Your task to perform on an android device: create a new album in the google photos Image 0: 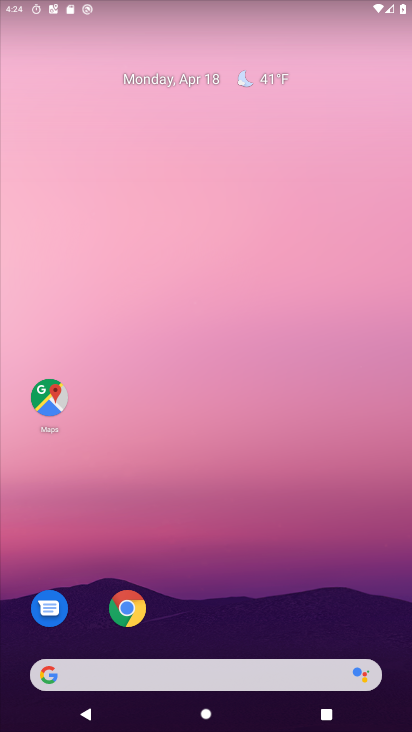
Step 0: drag from (161, 651) to (223, 267)
Your task to perform on an android device: create a new album in the google photos Image 1: 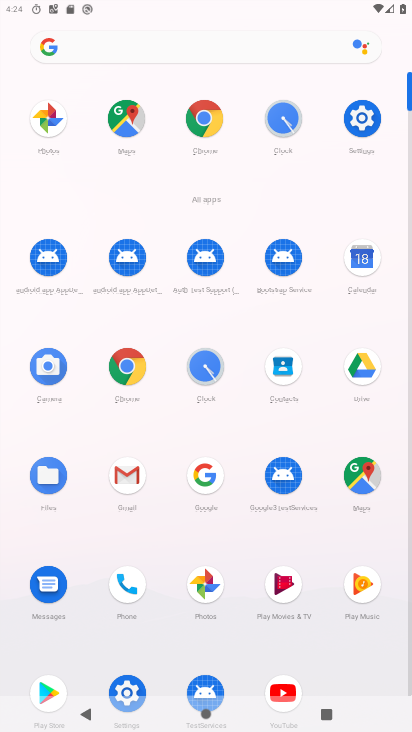
Step 1: click (205, 579)
Your task to perform on an android device: create a new album in the google photos Image 2: 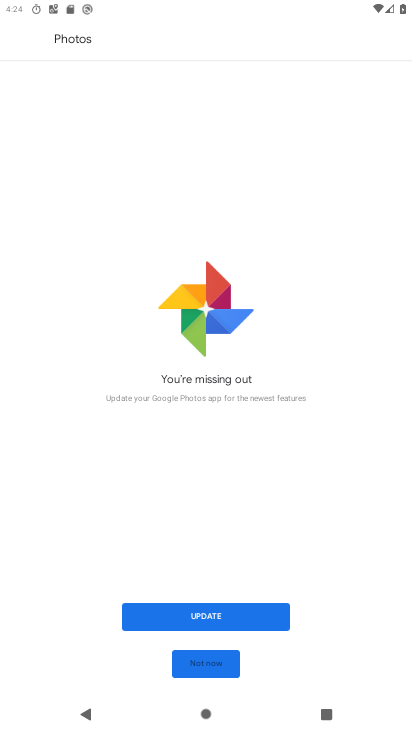
Step 2: click (208, 661)
Your task to perform on an android device: create a new album in the google photos Image 3: 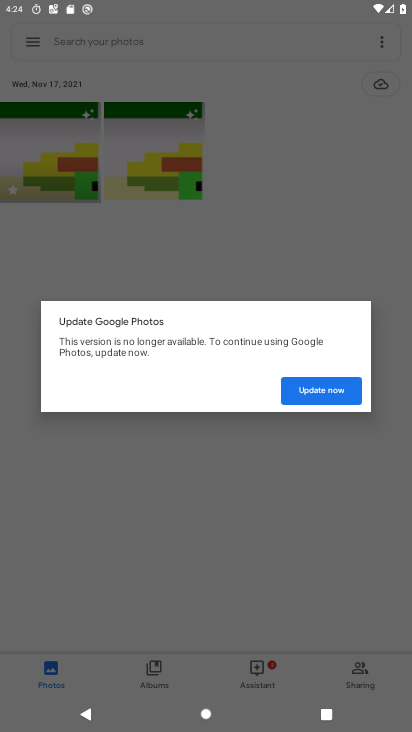
Step 3: click (326, 392)
Your task to perform on an android device: create a new album in the google photos Image 4: 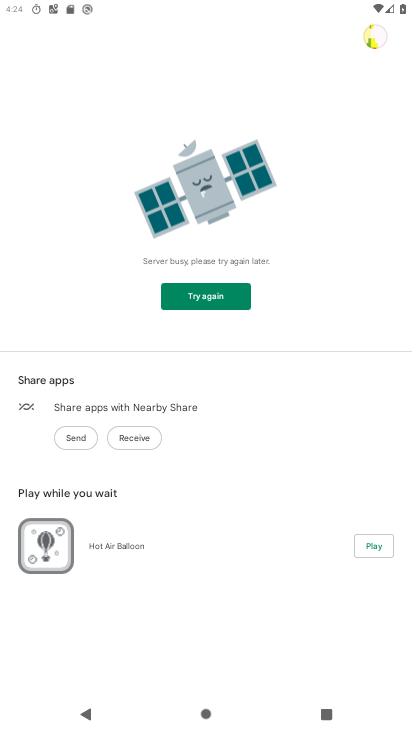
Step 4: click (202, 298)
Your task to perform on an android device: create a new album in the google photos Image 5: 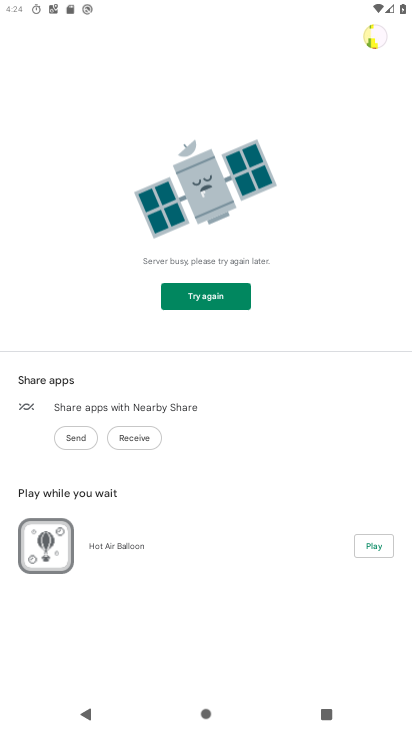
Step 5: task complete